Your task to perform on an android device: Go to wifi settings Image 0: 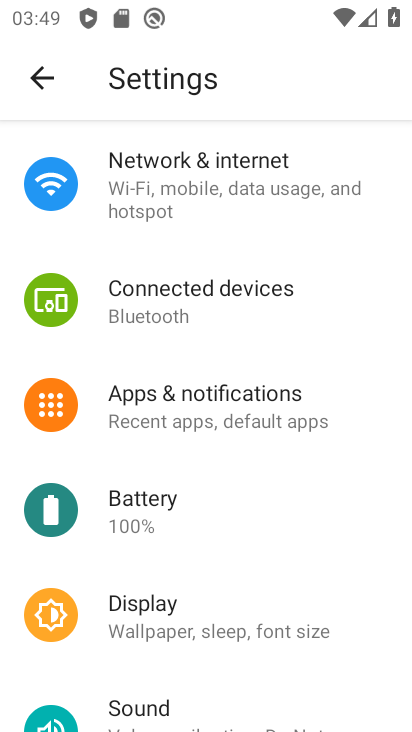
Step 0: click (197, 188)
Your task to perform on an android device: Go to wifi settings Image 1: 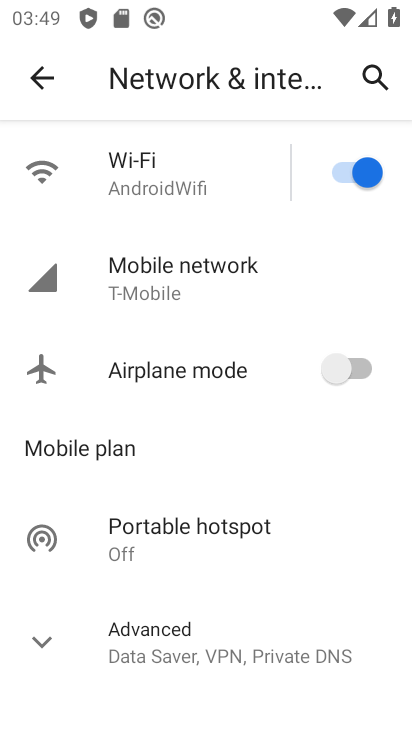
Step 1: click (166, 202)
Your task to perform on an android device: Go to wifi settings Image 2: 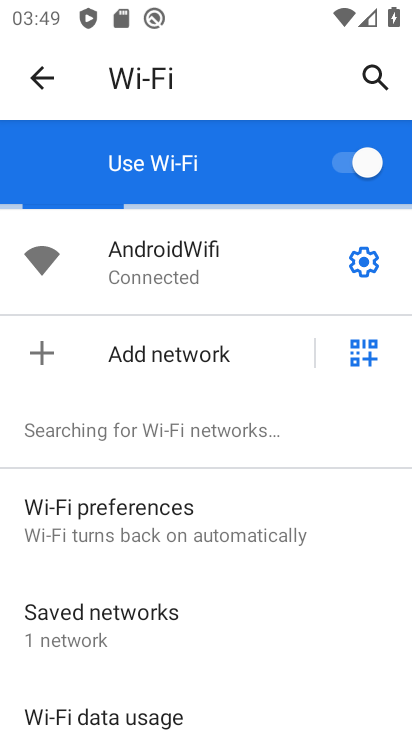
Step 2: task complete